Your task to perform on an android device: Go to wifi settings Image 0: 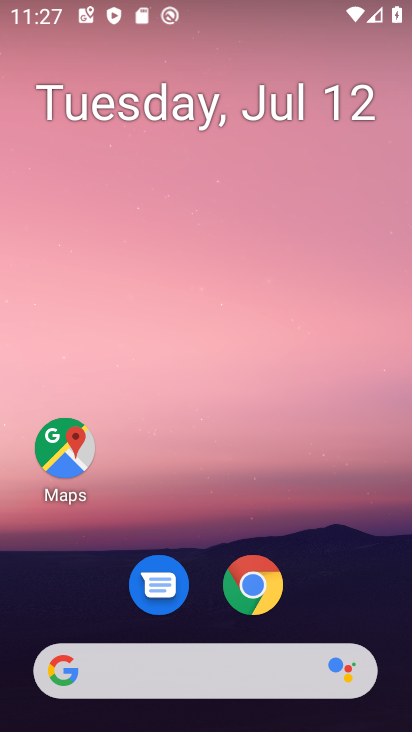
Step 0: drag from (326, 595) to (332, 23)
Your task to perform on an android device: Go to wifi settings Image 1: 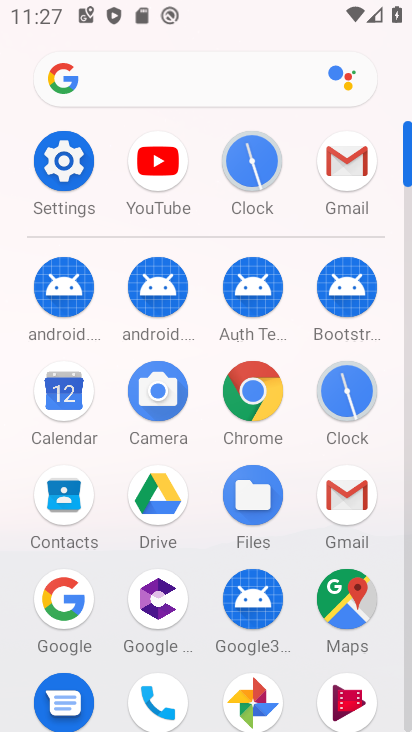
Step 1: click (75, 163)
Your task to perform on an android device: Go to wifi settings Image 2: 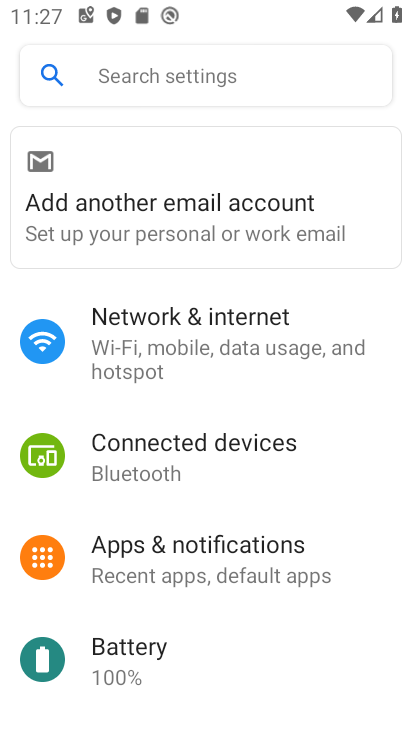
Step 2: click (185, 331)
Your task to perform on an android device: Go to wifi settings Image 3: 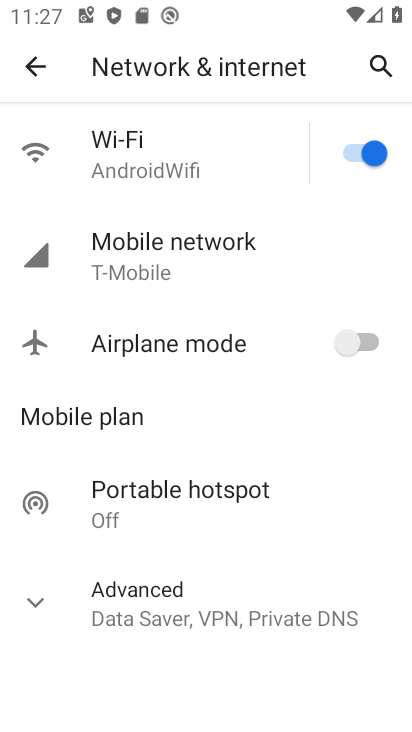
Step 3: click (183, 152)
Your task to perform on an android device: Go to wifi settings Image 4: 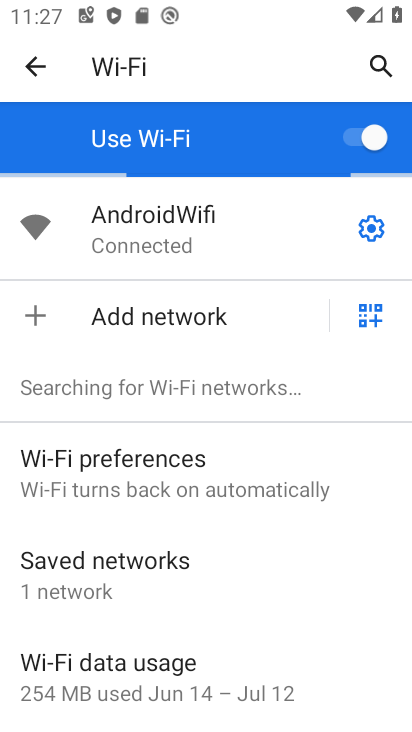
Step 4: task complete